Your task to perform on an android device: install app "Google Chrome" Image 0: 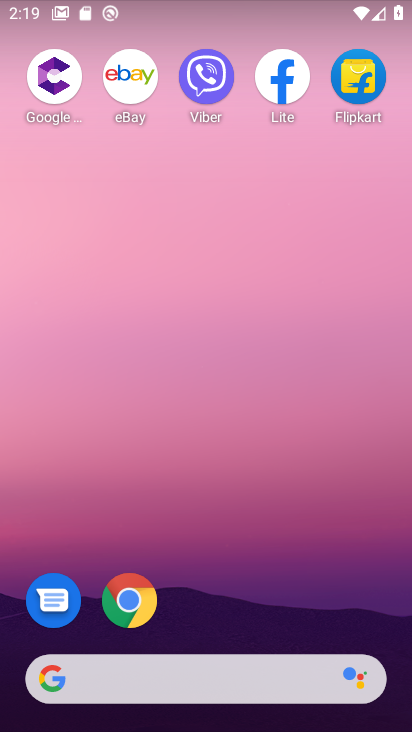
Step 0: drag from (305, 477) to (357, 3)
Your task to perform on an android device: install app "Google Chrome" Image 1: 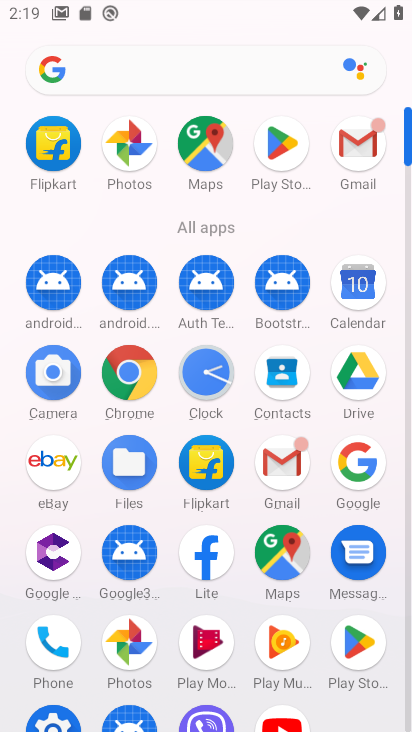
Step 1: click (274, 135)
Your task to perform on an android device: install app "Google Chrome" Image 2: 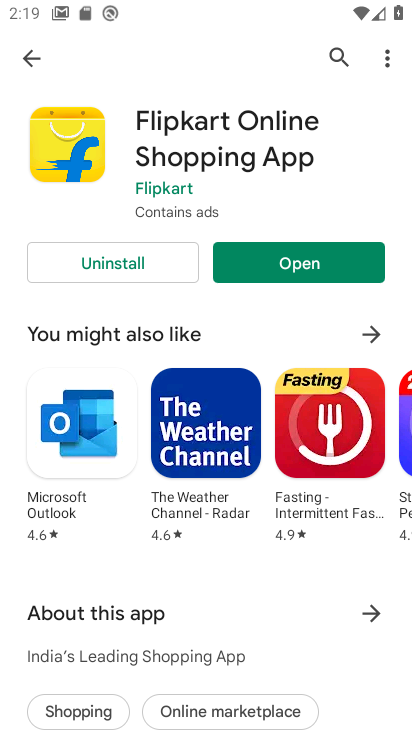
Step 2: click (329, 62)
Your task to perform on an android device: install app "Google Chrome" Image 3: 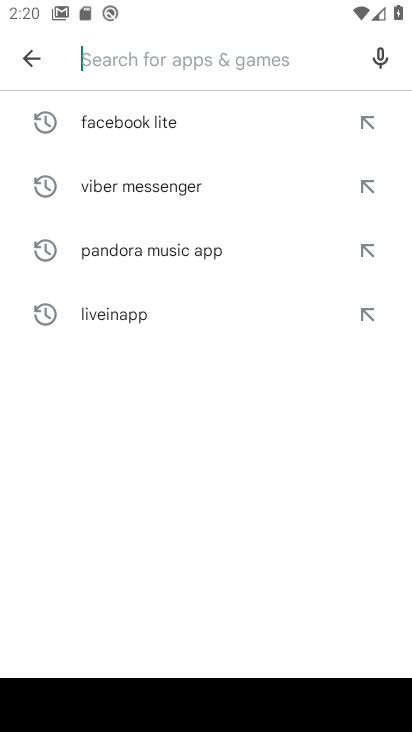
Step 3: click (193, 58)
Your task to perform on an android device: install app "Google Chrome" Image 4: 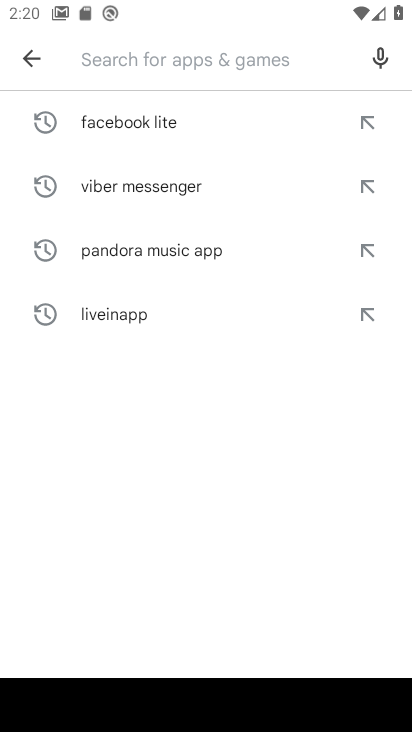
Step 4: type "Google Chrome"
Your task to perform on an android device: install app "Google Chrome" Image 5: 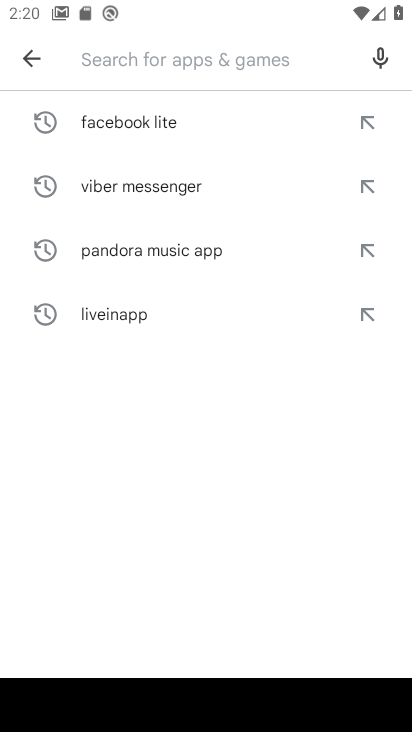
Step 5: click (210, 415)
Your task to perform on an android device: install app "Google Chrome" Image 6: 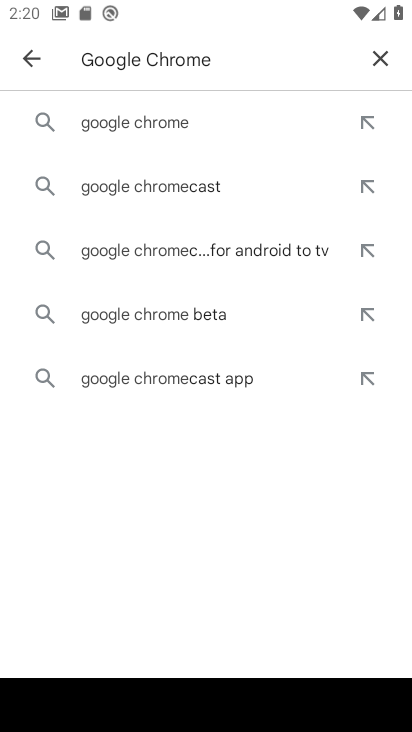
Step 6: click (84, 121)
Your task to perform on an android device: install app "Google Chrome" Image 7: 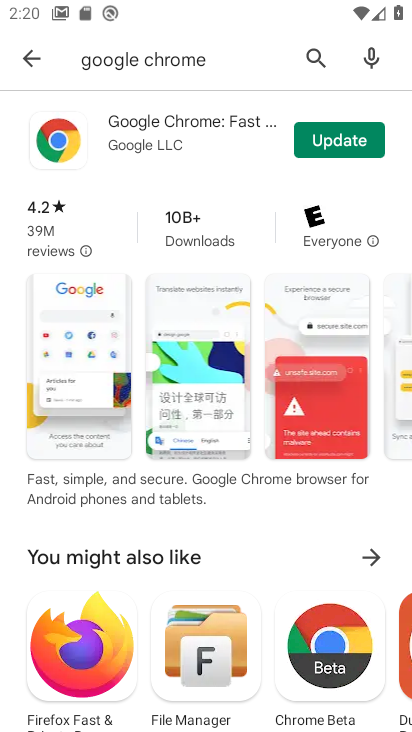
Step 7: task complete